Your task to perform on an android device: delete a single message in the gmail app Image 0: 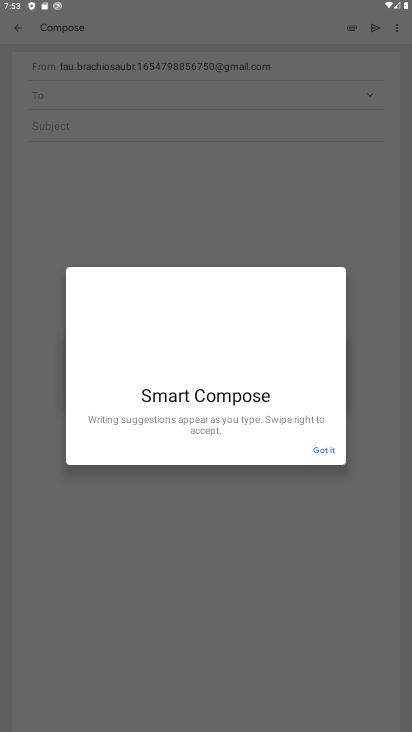
Step 0: press home button
Your task to perform on an android device: delete a single message in the gmail app Image 1: 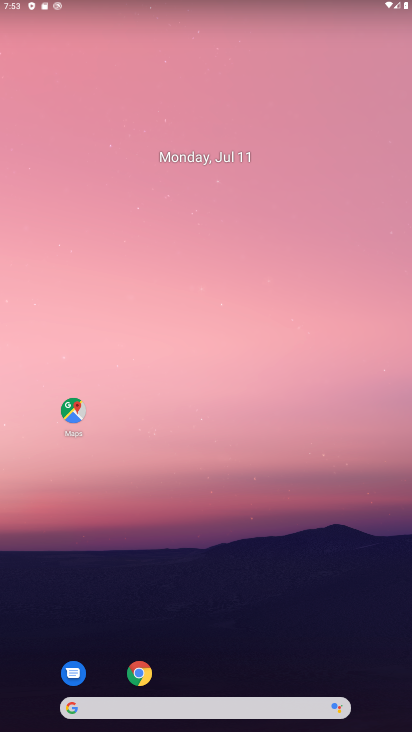
Step 1: drag from (204, 684) to (279, 75)
Your task to perform on an android device: delete a single message in the gmail app Image 2: 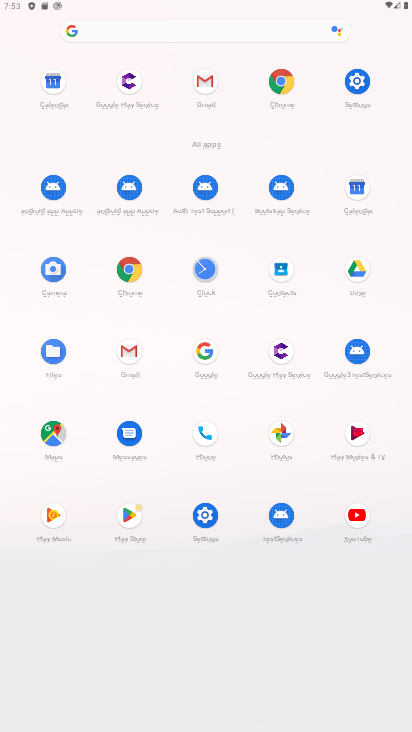
Step 2: click (201, 72)
Your task to perform on an android device: delete a single message in the gmail app Image 3: 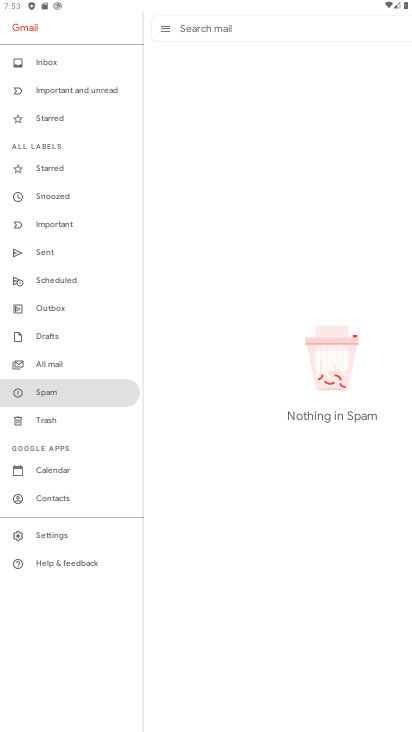
Step 3: click (161, 23)
Your task to perform on an android device: delete a single message in the gmail app Image 4: 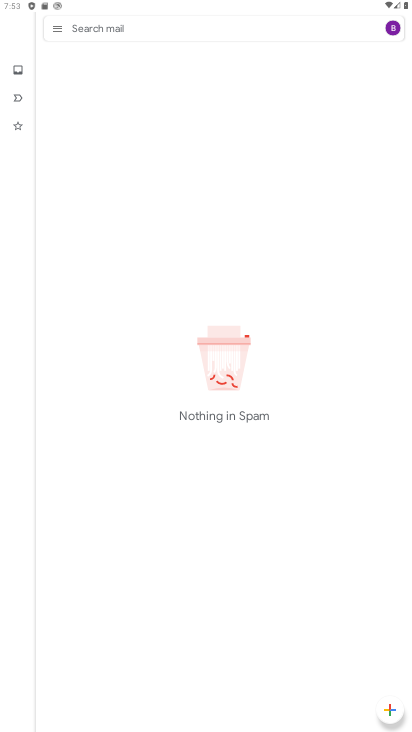
Step 4: click (58, 26)
Your task to perform on an android device: delete a single message in the gmail app Image 5: 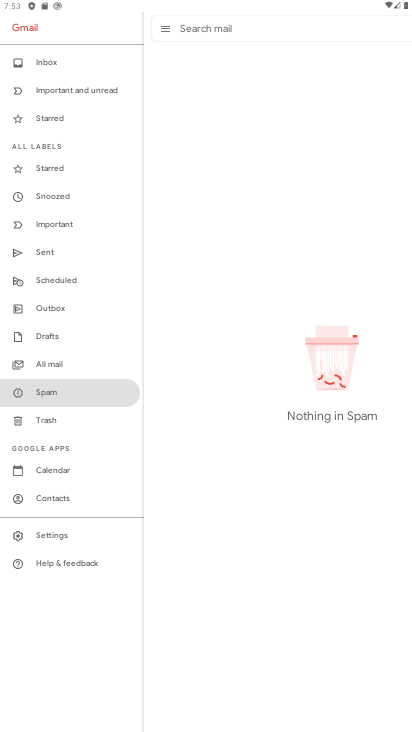
Step 5: click (62, 358)
Your task to perform on an android device: delete a single message in the gmail app Image 6: 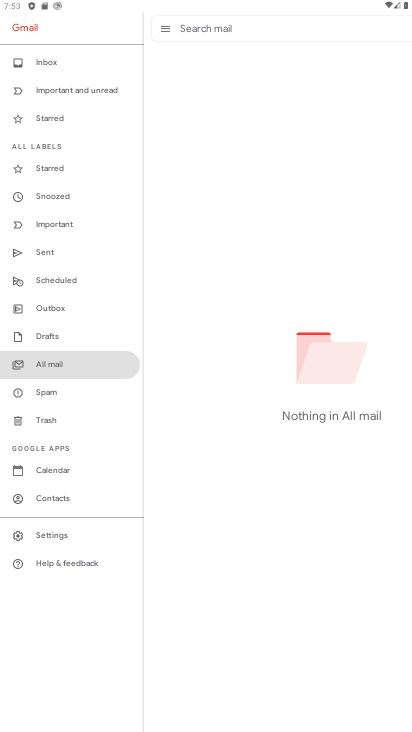
Step 6: click (163, 31)
Your task to perform on an android device: delete a single message in the gmail app Image 7: 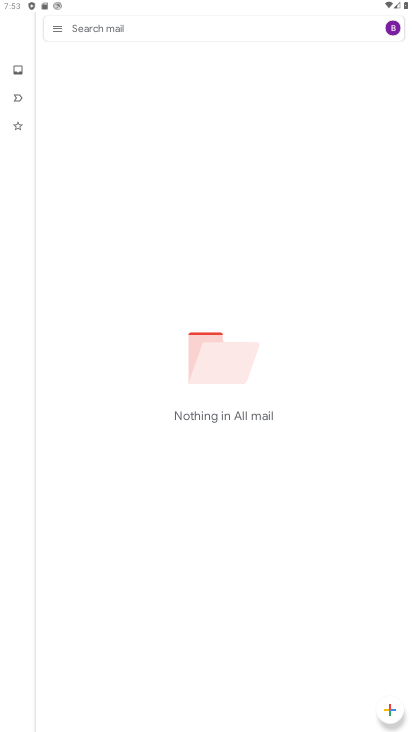
Step 7: task complete